Your task to perform on an android device: snooze an email in the gmail app Image 0: 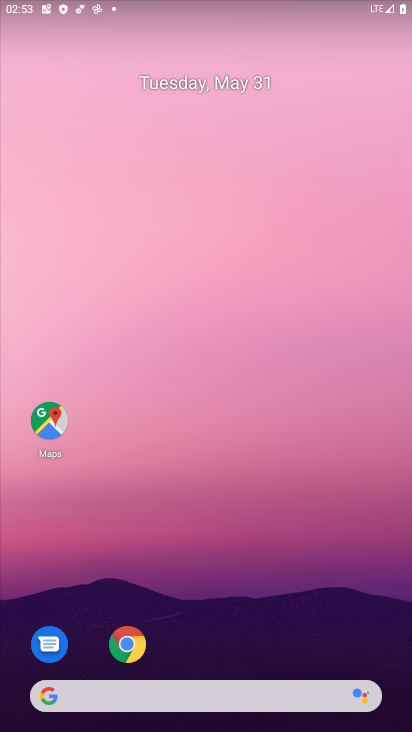
Step 0: drag from (289, 604) to (245, 282)
Your task to perform on an android device: snooze an email in the gmail app Image 1: 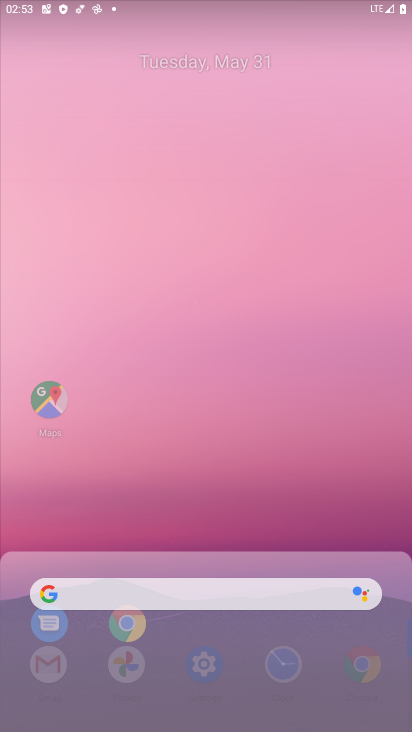
Step 1: click (247, 124)
Your task to perform on an android device: snooze an email in the gmail app Image 2: 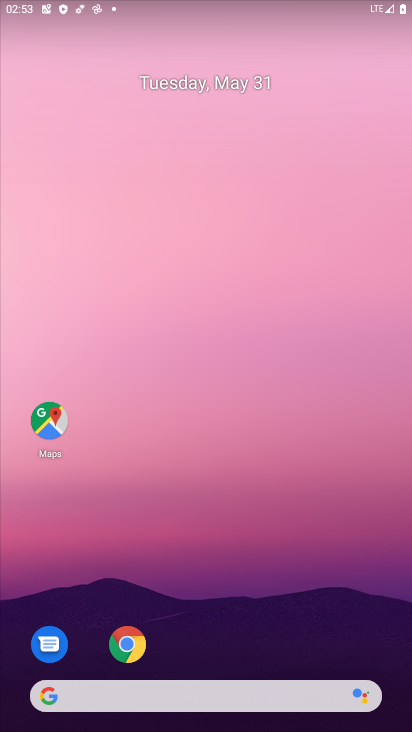
Step 2: drag from (269, 536) to (252, 76)
Your task to perform on an android device: snooze an email in the gmail app Image 3: 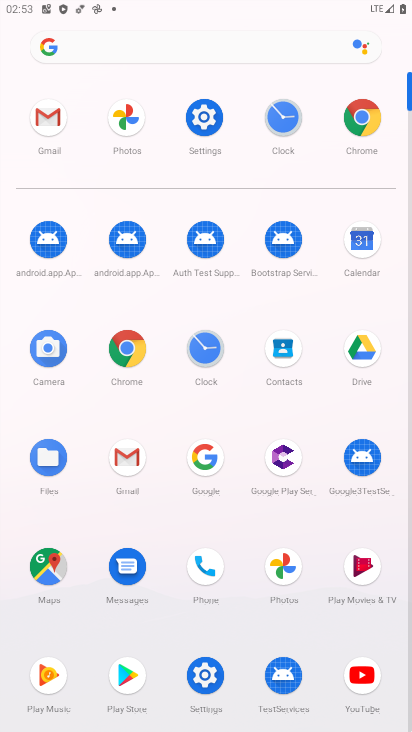
Step 3: click (41, 118)
Your task to perform on an android device: snooze an email in the gmail app Image 4: 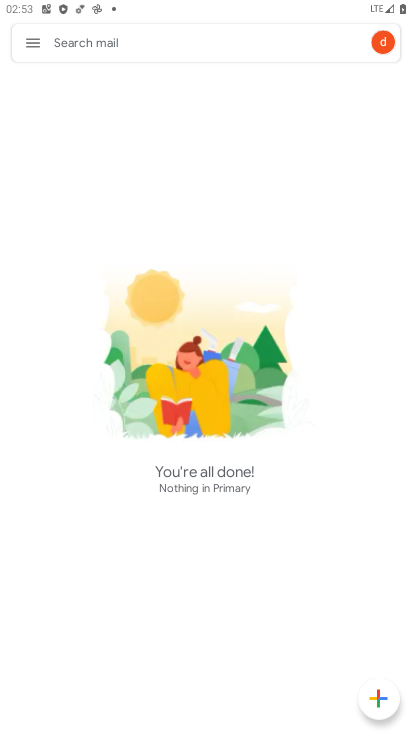
Step 4: click (35, 33)
Your task to perform on an android device: snooze an email in the gmail app Image 5: 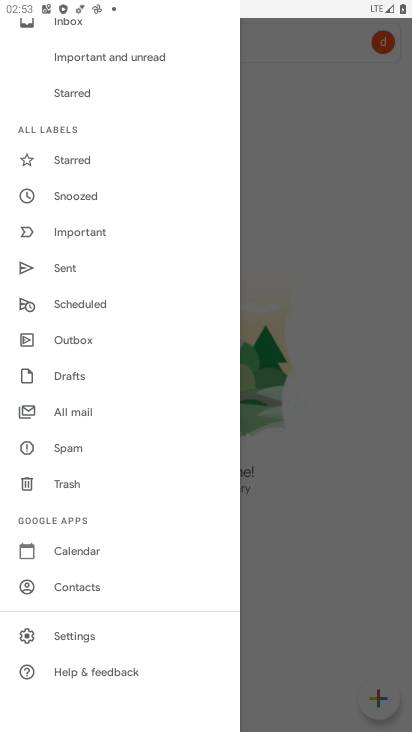
Step 5: click (76, 413)
Your task to perform on an android device: snooze an email in the gmail app Image 6: 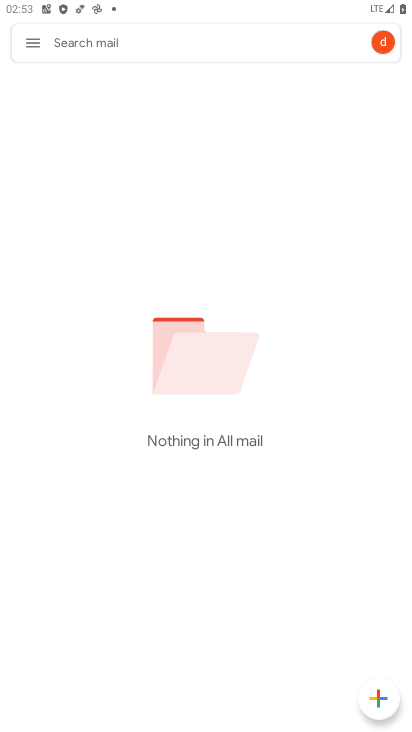
Step 6: task complete